Your task to perform on an android device: refresh tabs in the chrome app Image 0: 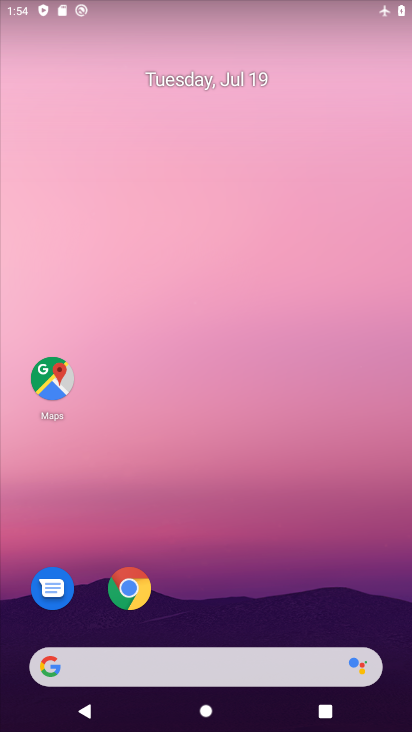
Step 0: press home button
Your task to perform on an android device: refresh tabs in the chrome app Image 1: 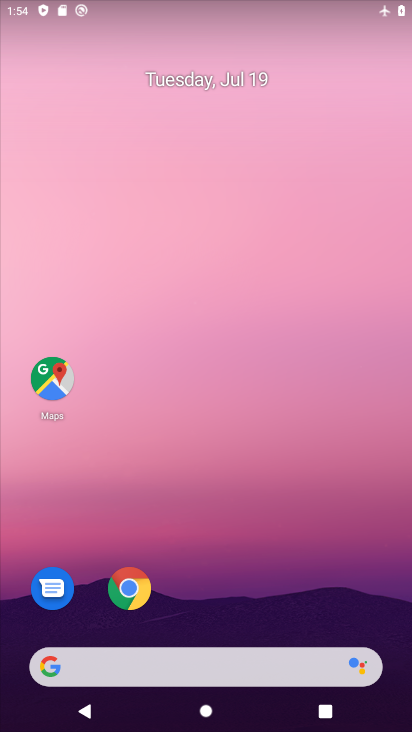
Step 1: drag from (251, 614) to (277, 123)
Your task to perform on an android device: refresh tabs in the chrome app Image 2: 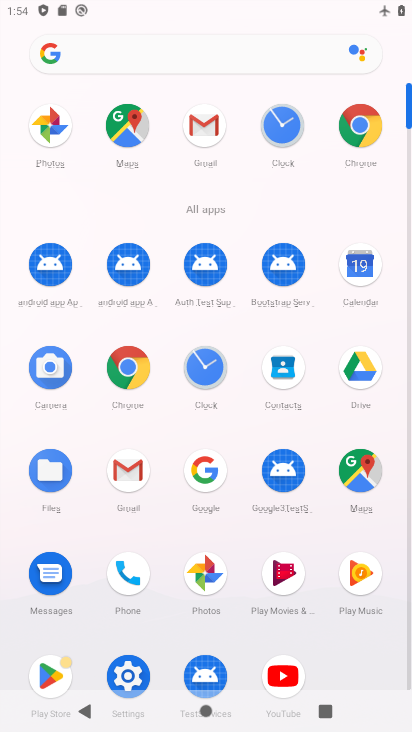
Step 2: click (362, 131)
Your task to perform on an android device: refresh tabs in the chrome app Image 3: 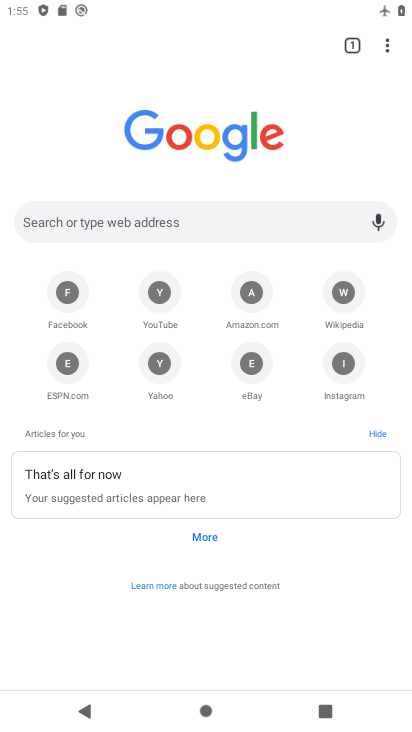
Step 3: click (388, 39)
Your task to perform on an android device: refresh tabs in the chrome app Image 4: 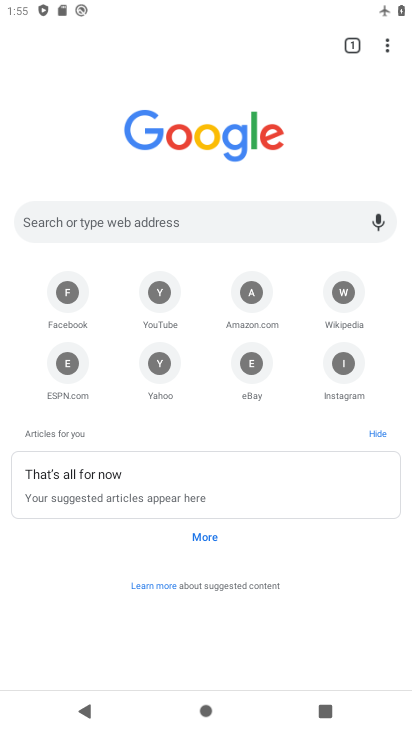
Step 4: task complete